Your task to perform on an android device: Go to Google maps Image 0: 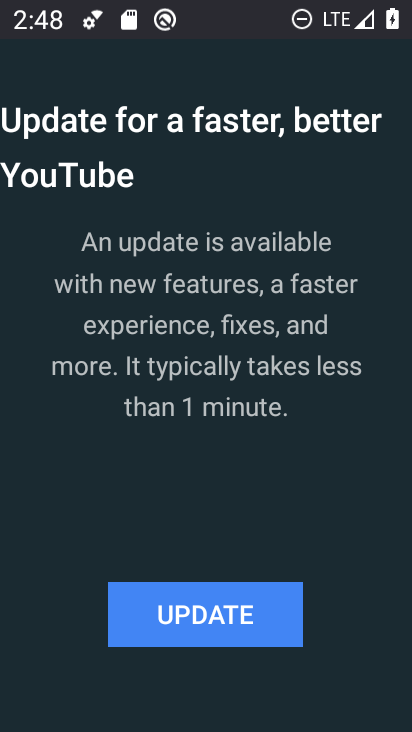
Step 0: press home button
Your task to perform on an android device: Go to Google maps Image 1: 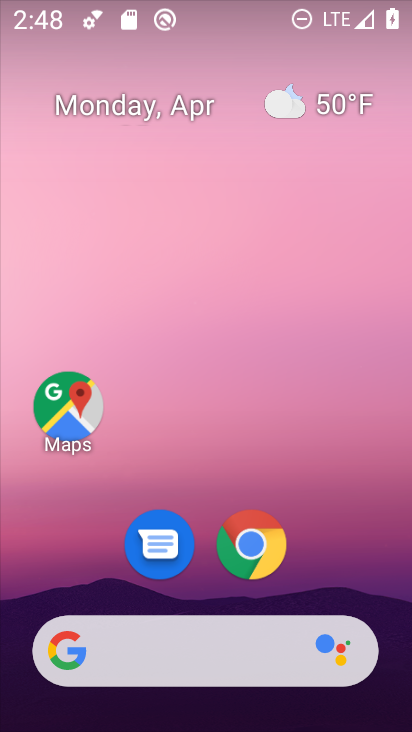
Step 1: click (77, 410)
Your task to perform on an android device: Go to Google maps Image 2: 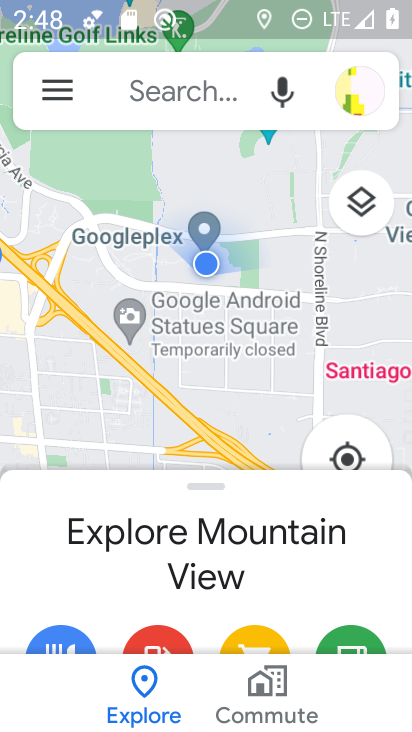
Step 2: task complete